Your task to perform on an android device: turn pop-ups off in chrome Image 0: 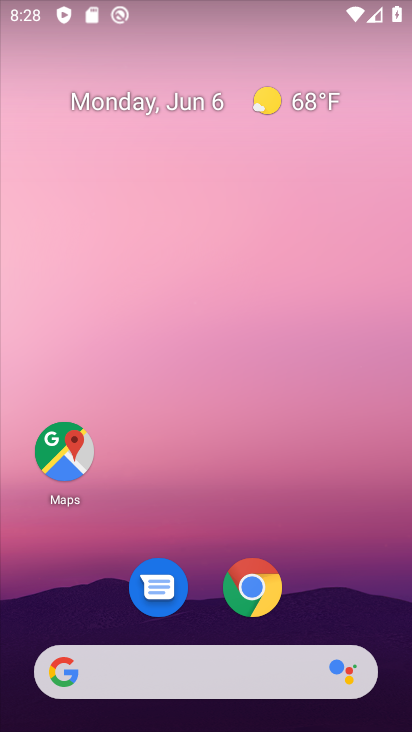
Step 0: click (257, 595)
Your task to perform on an android device: turn pop-ups off in chrome Image 1: 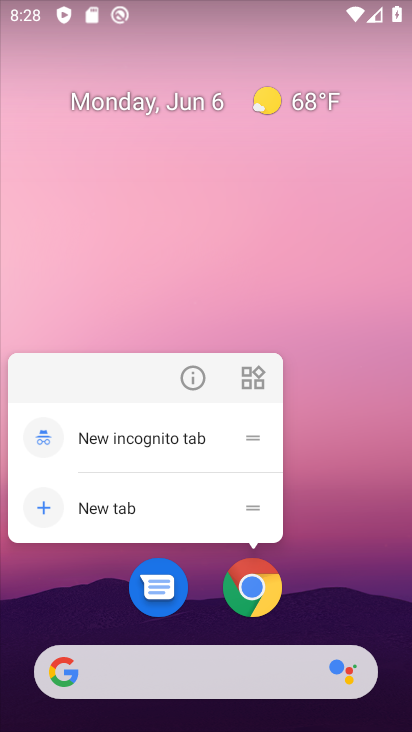
Step 1: click (257, 595)
Your task to perform on an android device: turn pop-ups off in chrome Image 2: 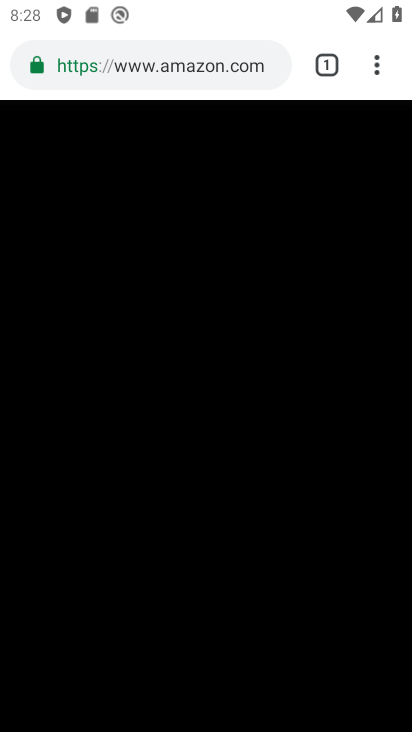
Step 2: click (257, 595)
Your task to perform on an android device: turn pop-ups off in chrome Image 3: 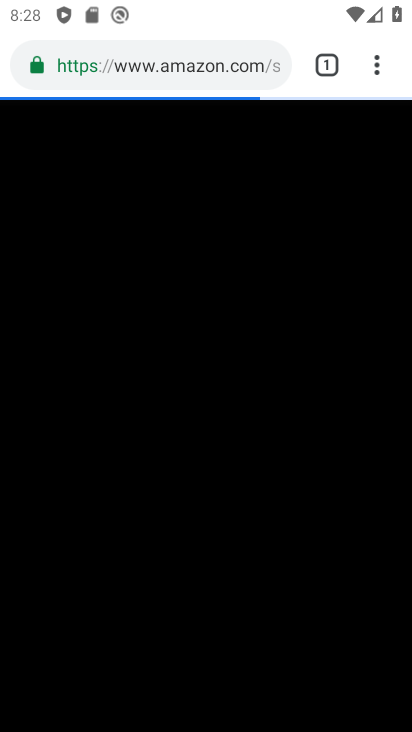
Step 3: click (382, 66)
Your task to perform on an android device: turn pop-ups off in chrome Image 4: 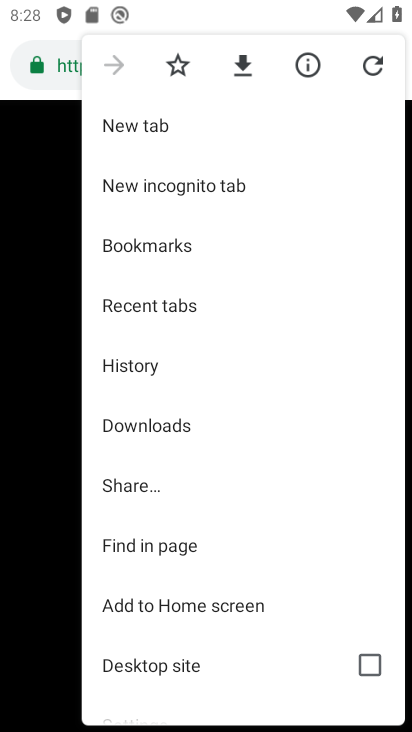
Step 4: drag from (172, 555) to (157, 174)
Your task to perform on an android device: turn pop-ups off in chrome Image 5: 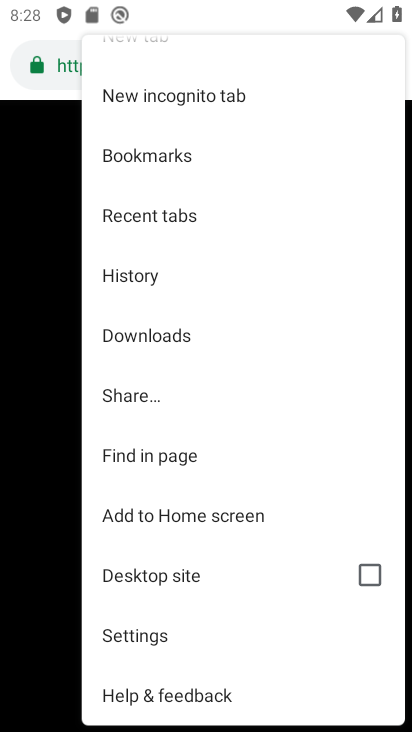
Step 5: click (143, 638)
Your task to perform on an android device: turn pop-ups off in chrome Image 6: 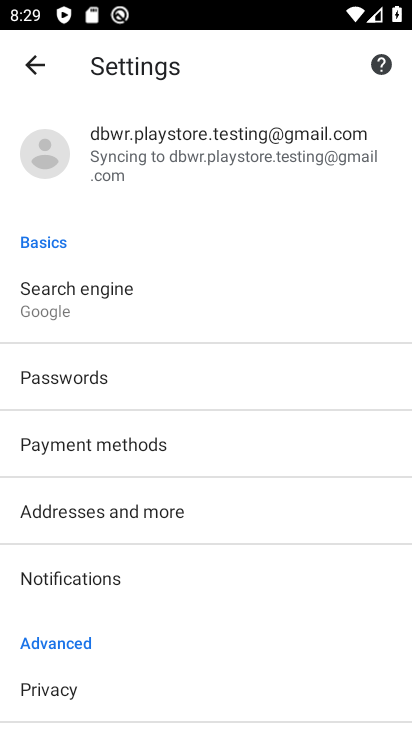
Step 6: drag from (143, 638) to (92, 76)
Your task to perform on an android device: turn pop-ups off in chrome Image 7: 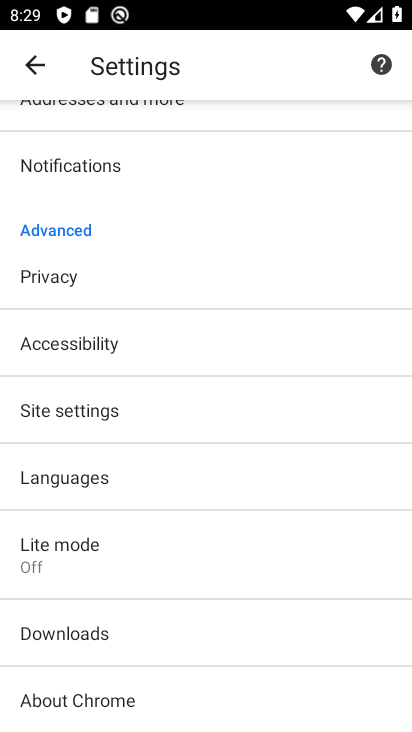
Step 7: click (118, 420)
Your task to perform on an android device: turn pop-ups off in chrome Image 8: 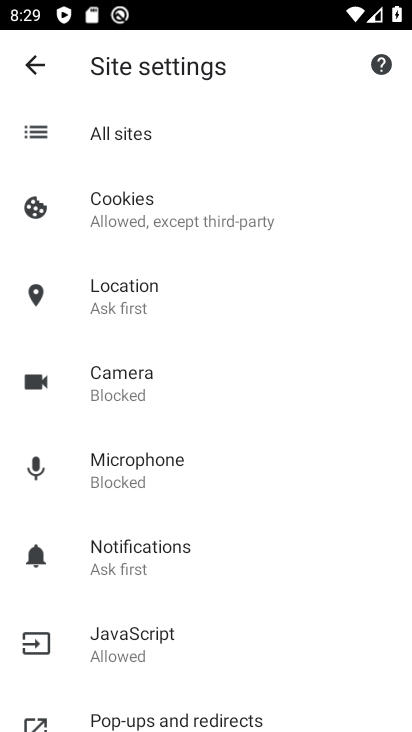
Step 8: drag from (145, 588) to (128, 253)
Your task to perform on an android device: turn pop-ups off in chrome Image 9: 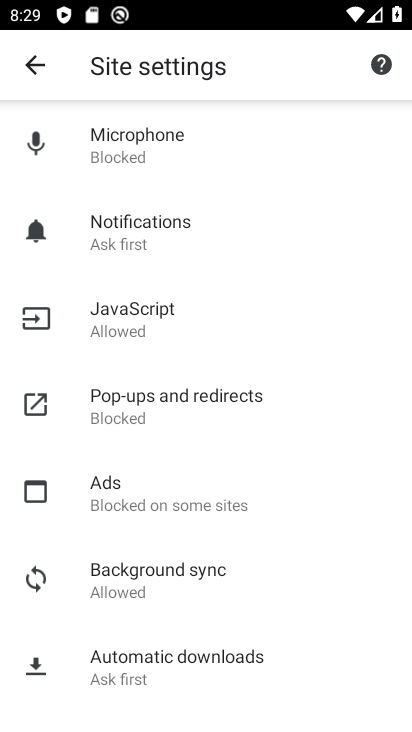
Step 9: click (129, 394)
Your task to perform on an android device: turn pop-ups off in chrome Image 10: 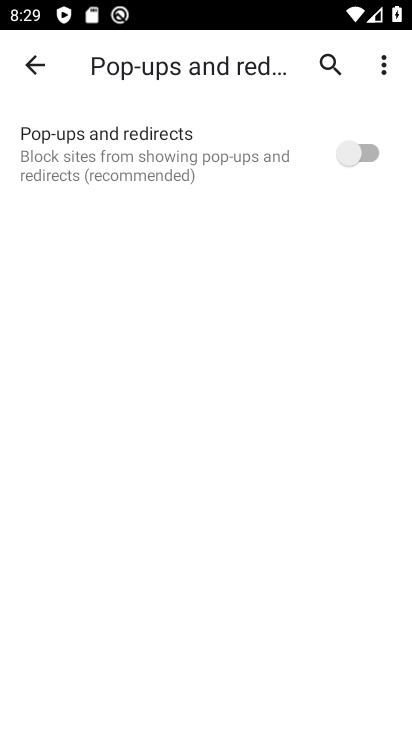
Step 10: task complete